Your task to perform on an android device: show emergency info Image 0: 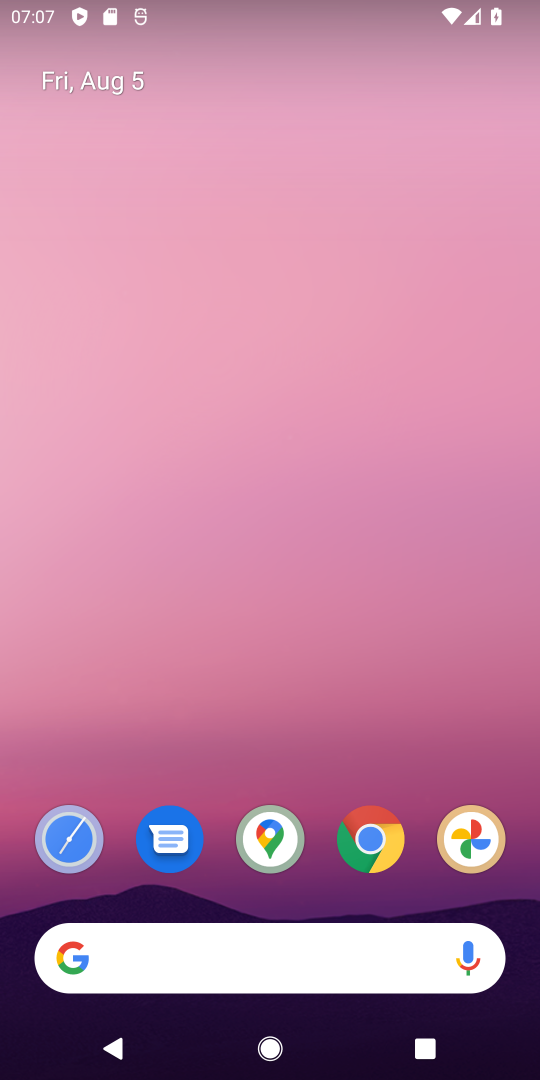
Step 0: drag from (313, 680) to (288, 132)
Your task to perform on an android device: show emergency info Image 1: 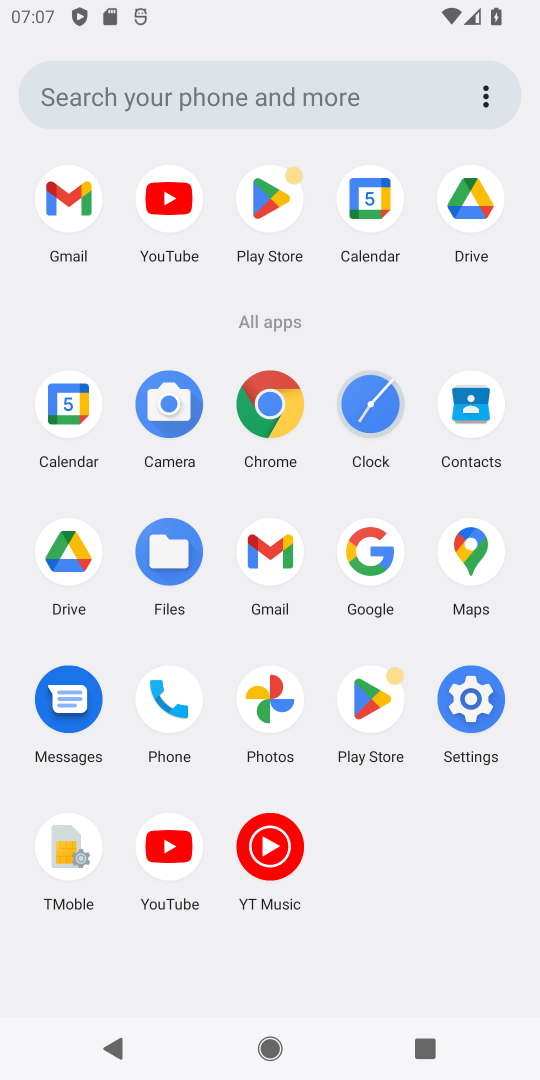
Step 1: click (475, 691)
Your task to perform on an android device: show emergency info Image 2: 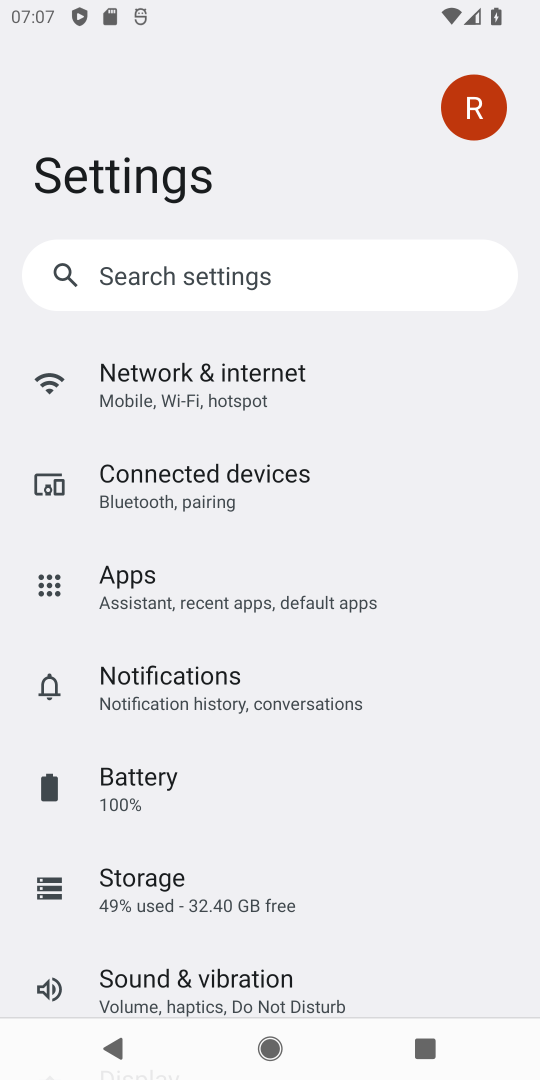
Step 2: drag from (239, 943) to (251, 428)
Your task to perform on an android device: show emergency info Image 3: 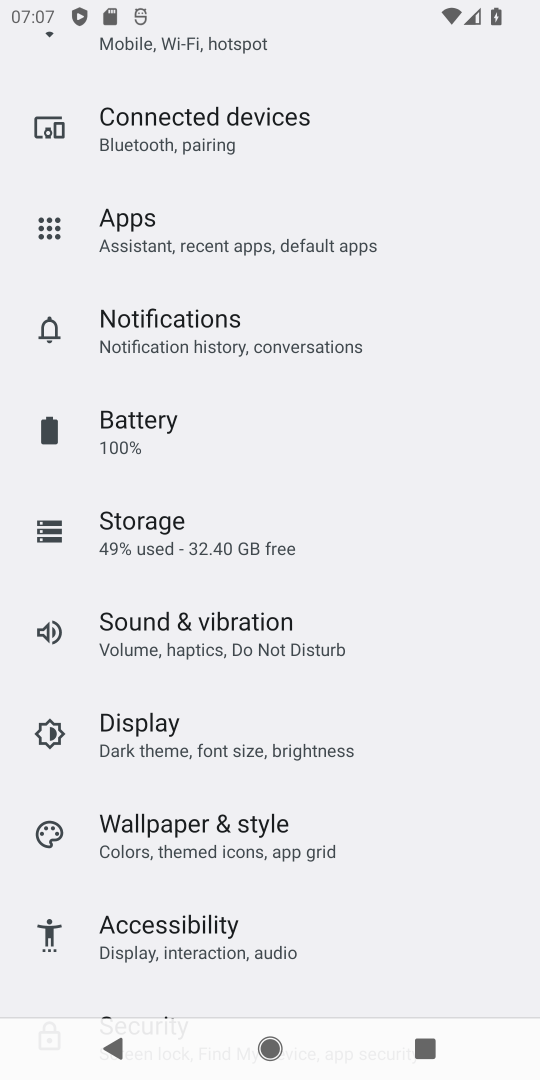
Step 3: drag from (209, 823) to (221, 423)
Your task to perform on an android device: show emergency info Image 4: 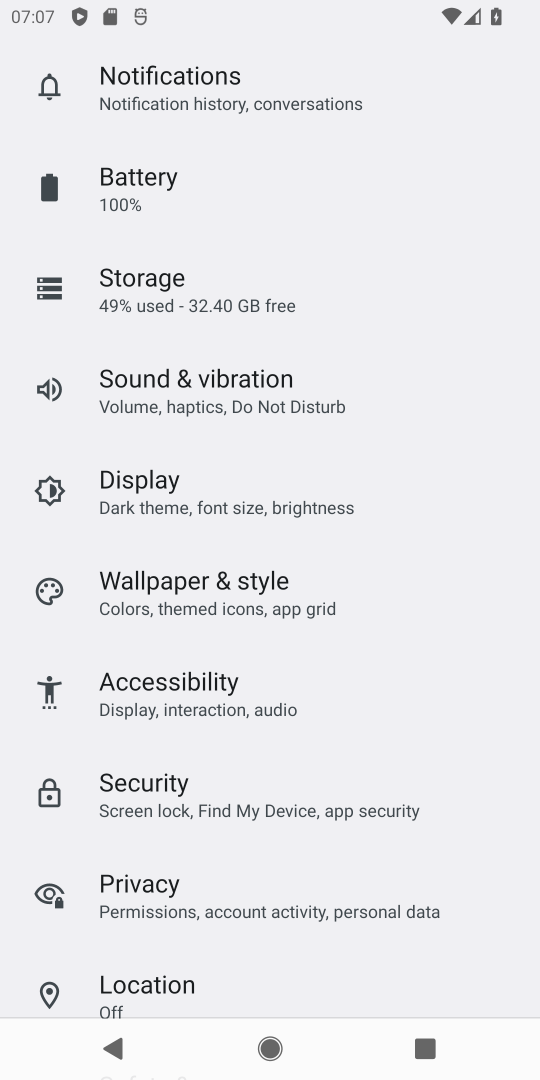
Step 4: drag from (191, 962) to (191, 478)
Your task to perform on an android device: show emergency info Image 5: 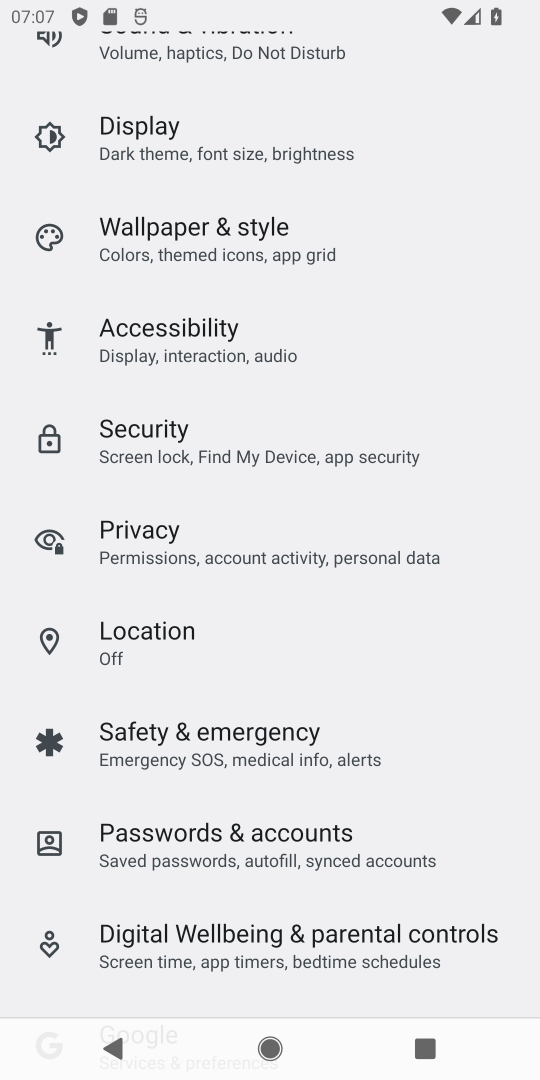
Step 5: drag from (221, 970) to (215, 447)
Your task to perform on an android device: show emergency info Image 6: 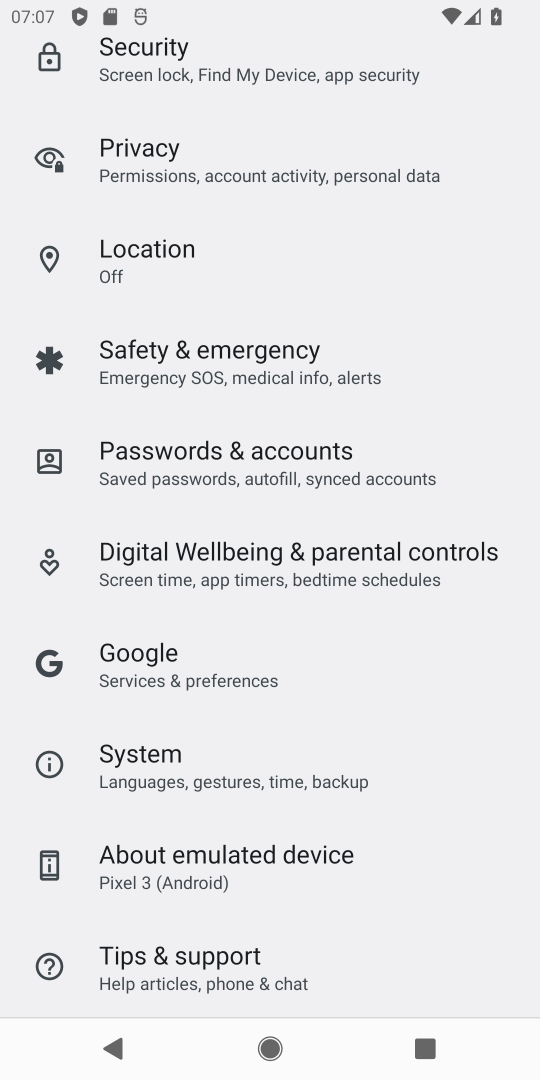
Step 6: drag from (203, 957) to (206, 673)
Your task to perform on an android device: show emergency info Image 7: 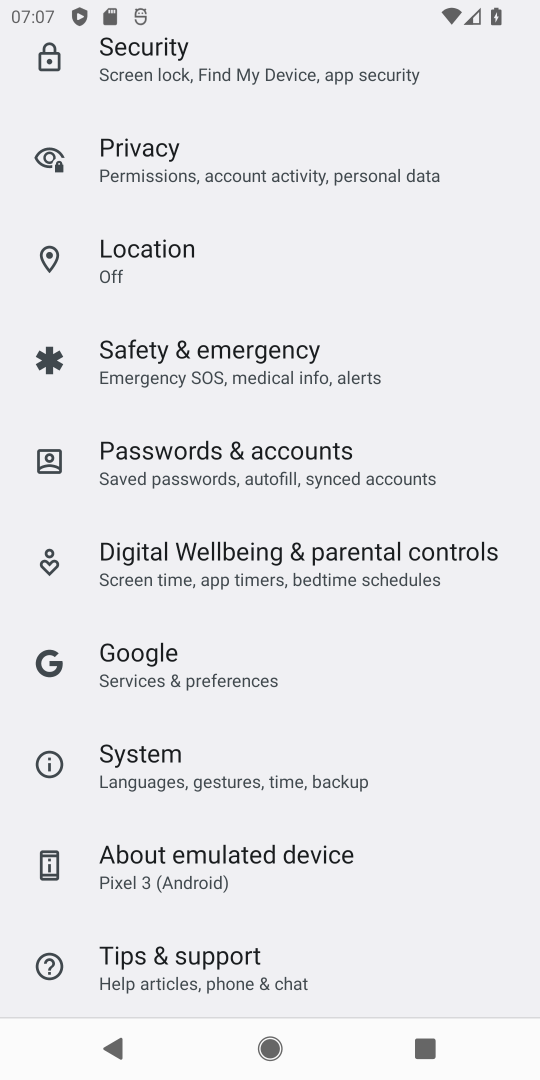
Step 7: drag from (223, 924) to (212, 438)
Your task to perform on an android device: show emergency info Image 8: 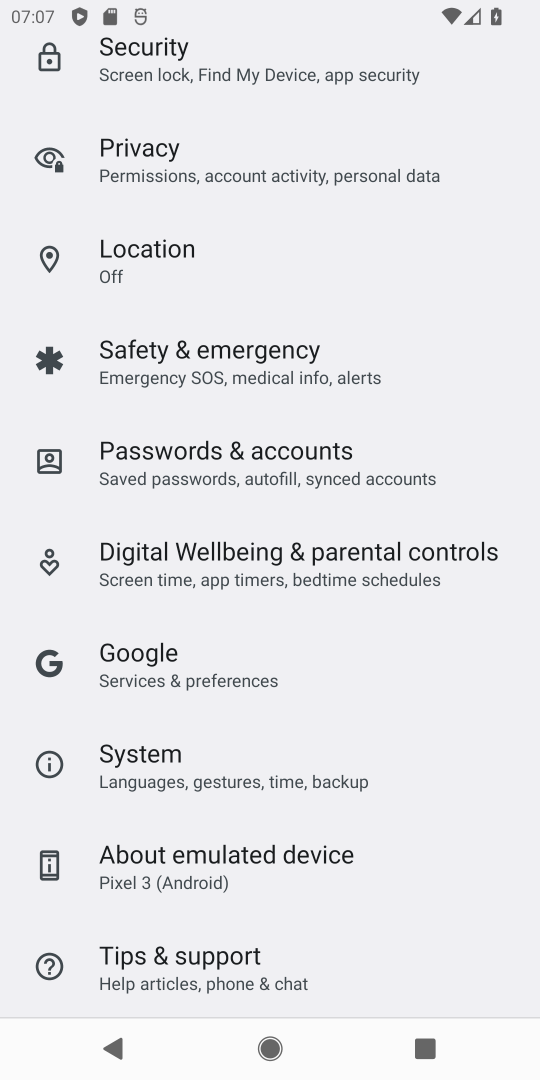
Step 8: drag from (205, 965) to (186, 333)
Your task to perform on an android device: show emergency info Image 9: 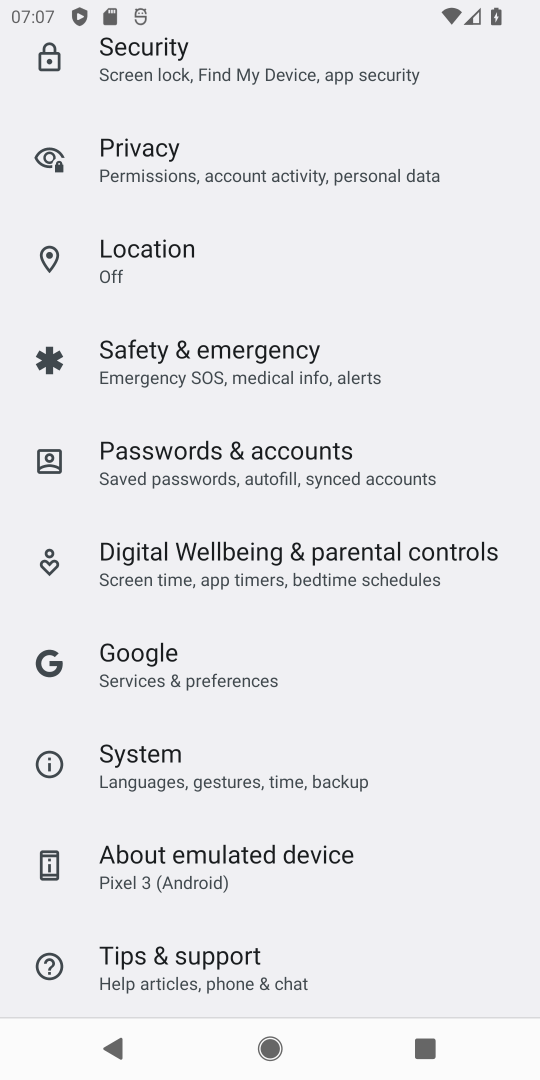
Step 9: click (205, 861)
Your task to perform on an android device: show emergency info Image 10: 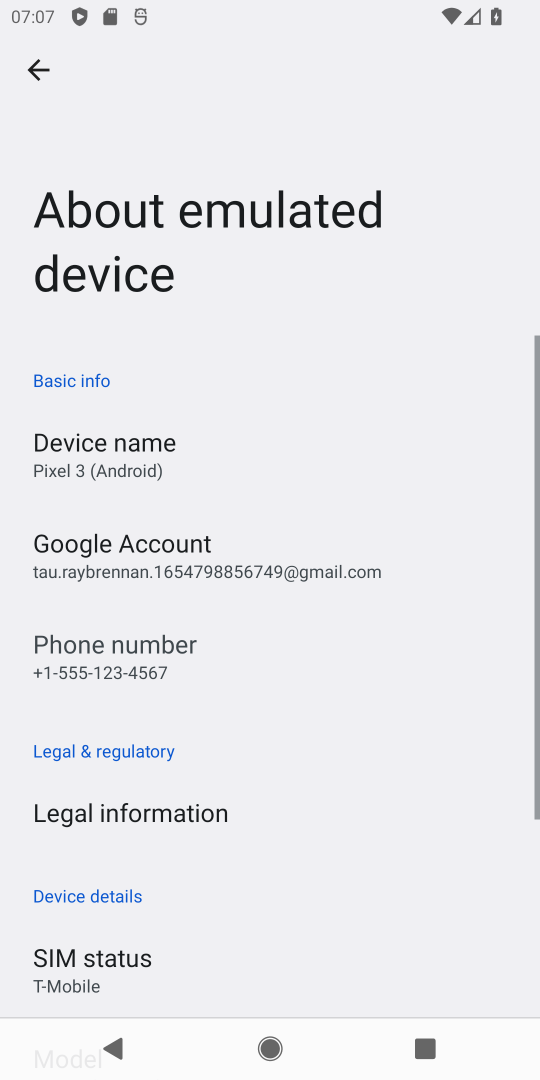
Step 10: task complete